Your task to perform on an android device: Search for seafood restaurants on Google Maps Image 0: 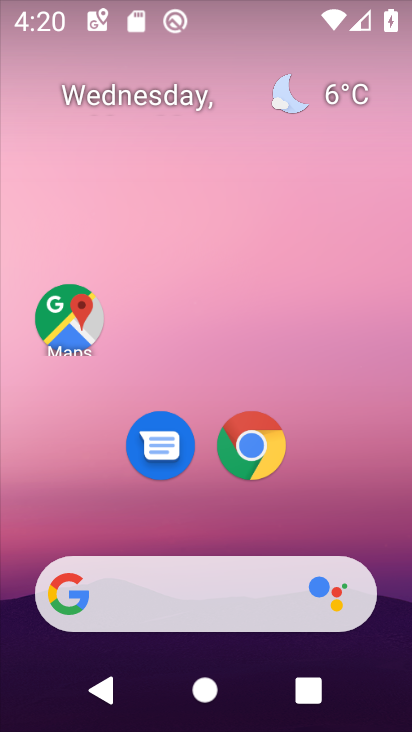
Step 0: click (95, 336)
Your task to perform on an android device: Search for seafood restaurants on Google Maps Image 1: 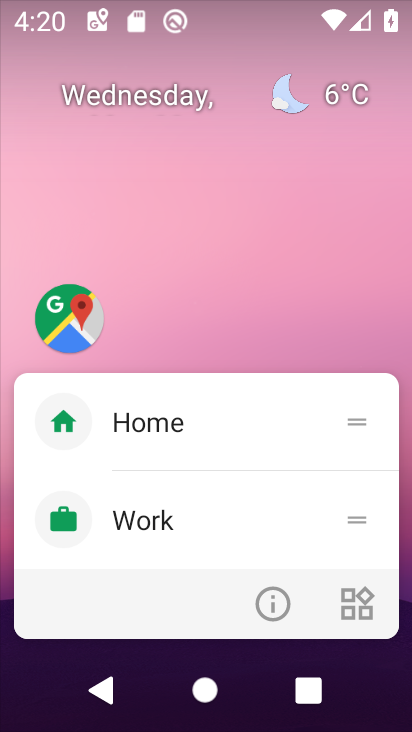
Step 1: click (76, 315)
Your task to perform on an android device: Search for seafood restaurants on Google Maps Image 2: 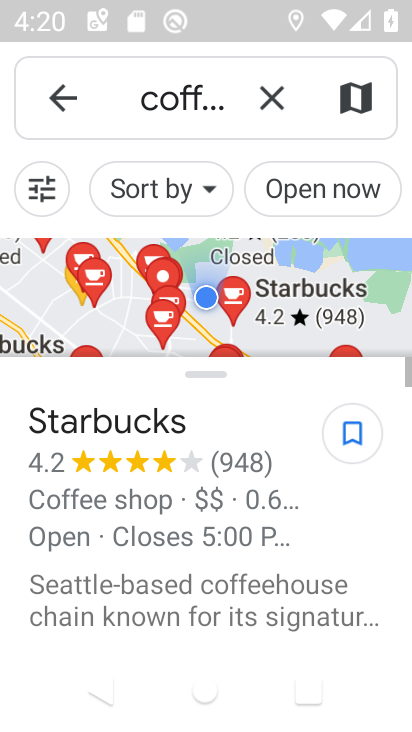
Step 2: click (259, 94)
Your task to perform on an android device: Search for seafood restaurants on Google Maps Image 3: 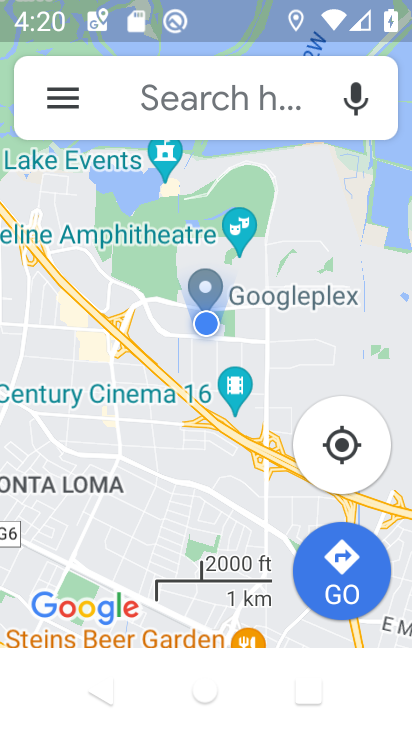
Step 3: click (206, 100)
Your task to perform on an android device: Search for seafood restaurants on Google Maps Image 4: 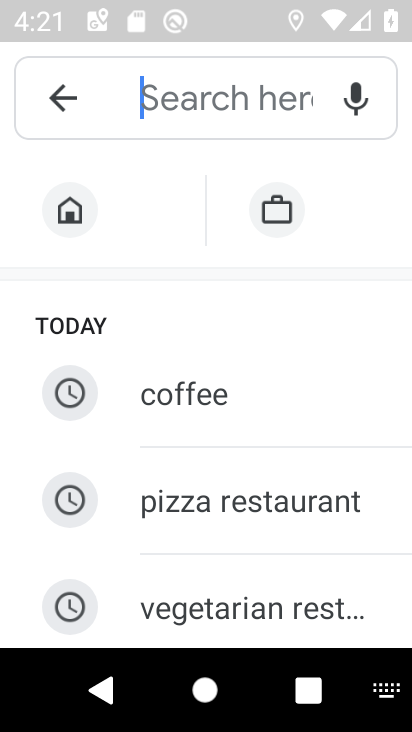
Step 4: type "seafood restaurant"
Your task to perform on an android device: Search for seafood restaurants on Google Maps Image 5: 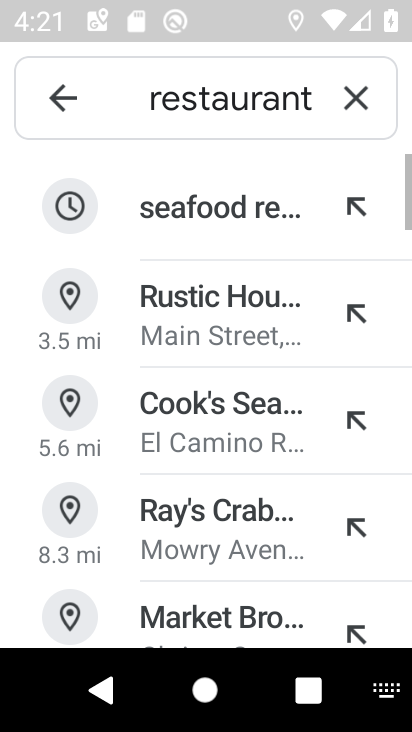
Step 5: click (197, 213)
Your task to perform on an android device: Search for seafood restaurants on Google Maps Image 6: 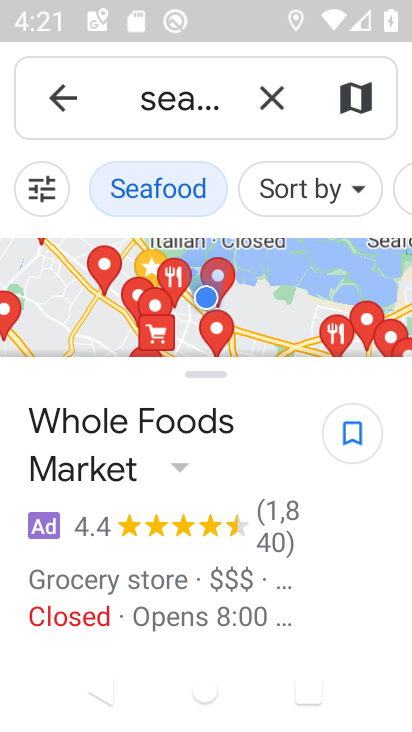
Step 6: task complete